Your task to perform on an android device: turn on sleep mode Image 0: 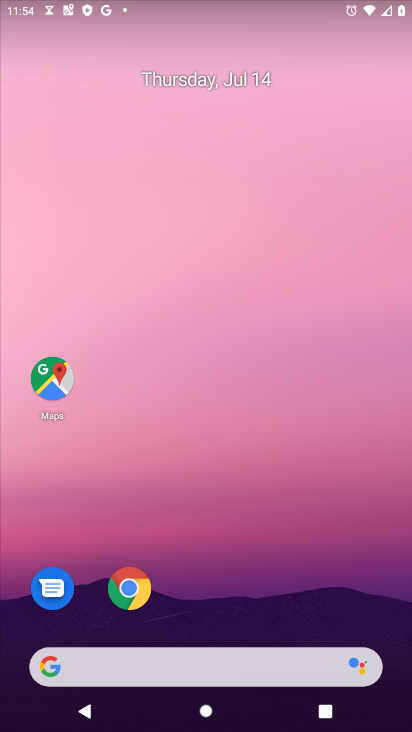
Step 0: press home button
Your task to perform on an android device: turn on sleep mode Image 1: 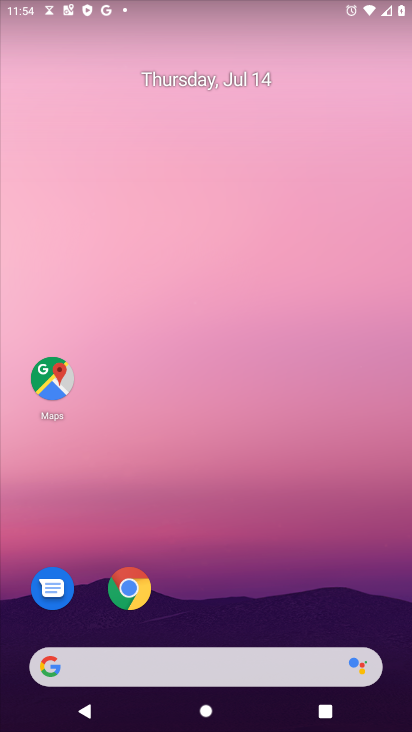
Step 1: drag from (190, 636) to (203, 6)
Your task to perform on an android device: turn on sleep mode Image 2: 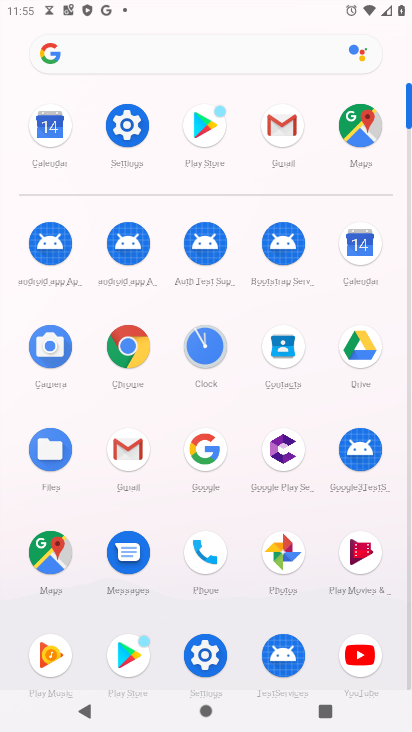
Step 2: click (128, 135)
Your task to perform on an android device: turn on sleep mode Image 3: 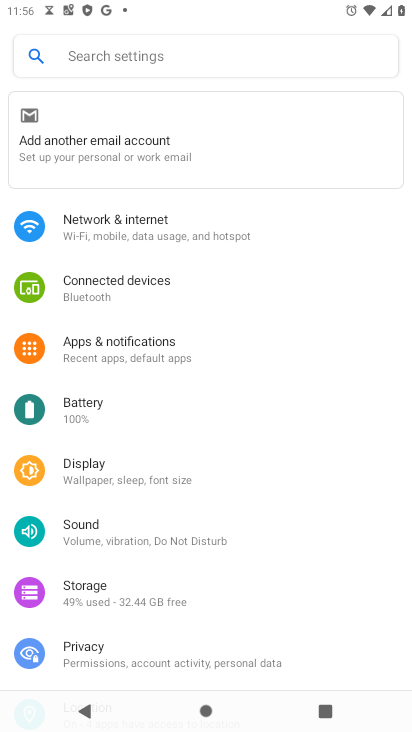
Step 3: click (127, 476)
Your task to perform on an android device: turn on sleep mode Image 4: 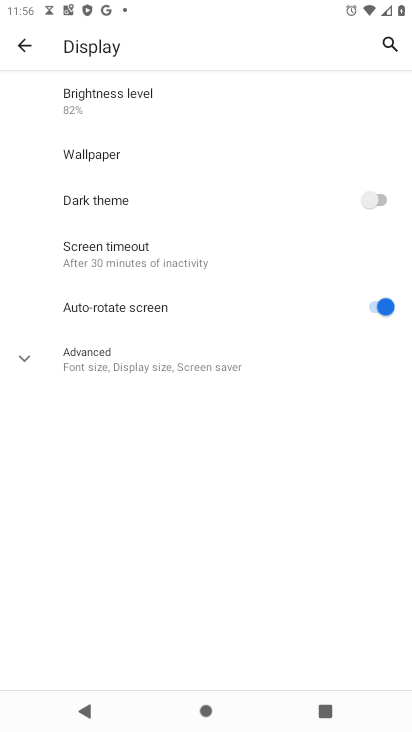
Step 4: task complete